Your task to perform on an android device: Go to Google maps Image 0: 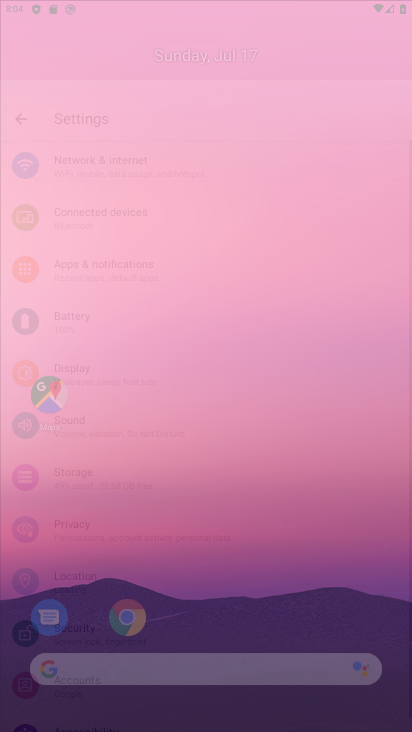
Step 0: drag from (223, 393) to (211, 297)
Your task to perform on an android device: Go to Google maps Image 1: 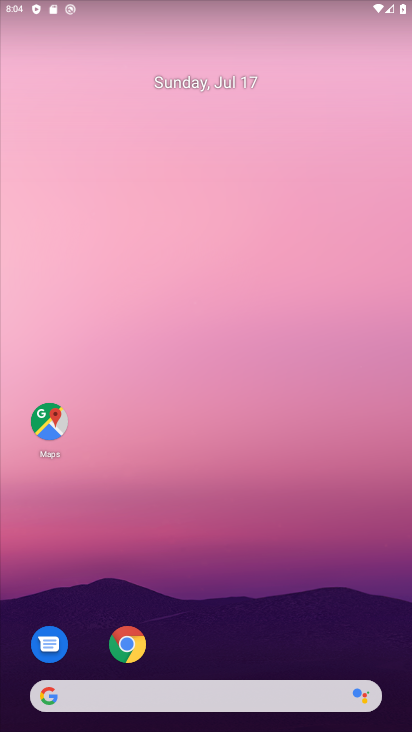
Step 1: drag from (213, 705) to (161, 132)
Your task to perform on an android device: Go to Google maps Image 2: 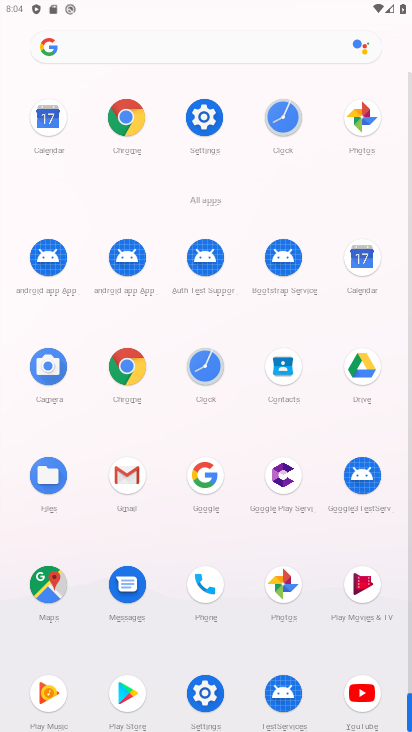
Step 2: click (57, 589)
Your task to perform on an android device: Go to Google maps Image 3: 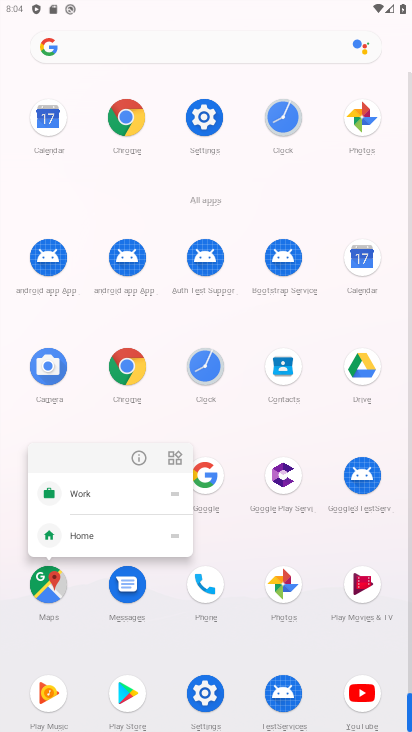
Step 3: click (51, 598)
Your task to perform on an android device: Go to Google maps Image 4: 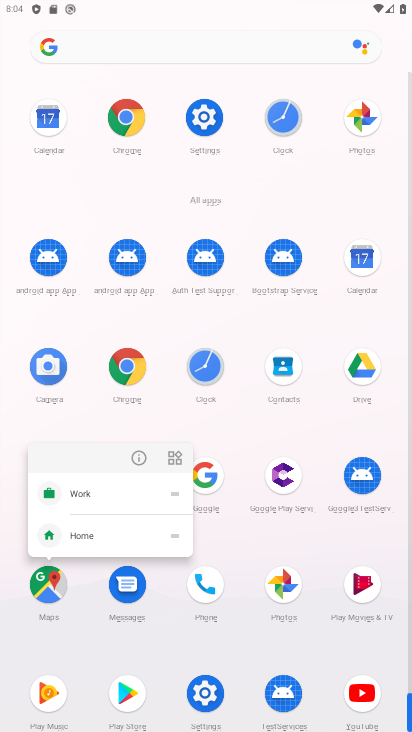
Step 4: click (53, 599)
Your task to perform on an android device: Go to Google maps Image 5: 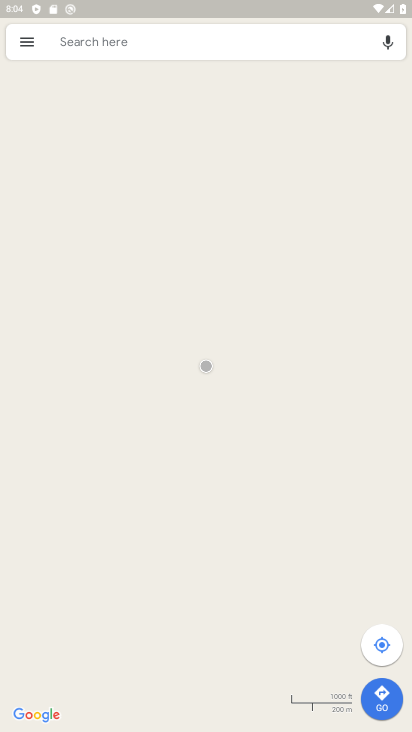
Step 5: task complete